Your task to perform on an android device: Toggle the flashlight Image 0: 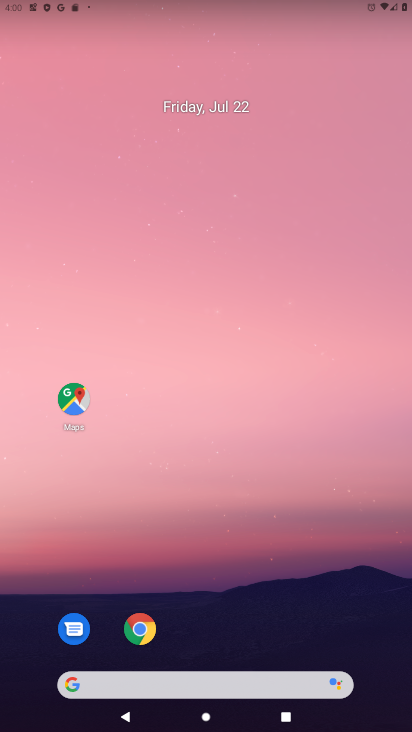
Step 0: drag from (192, 639) to (241, 123)
Your task to perform on an android device: Toggle the flashlight Image 1: 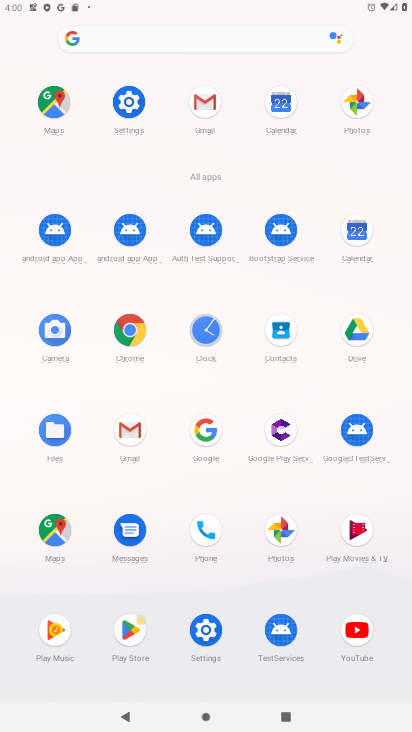
Step 1: task complete